Your task to perform on an android device: allow cookies in the chrome app Image 0: 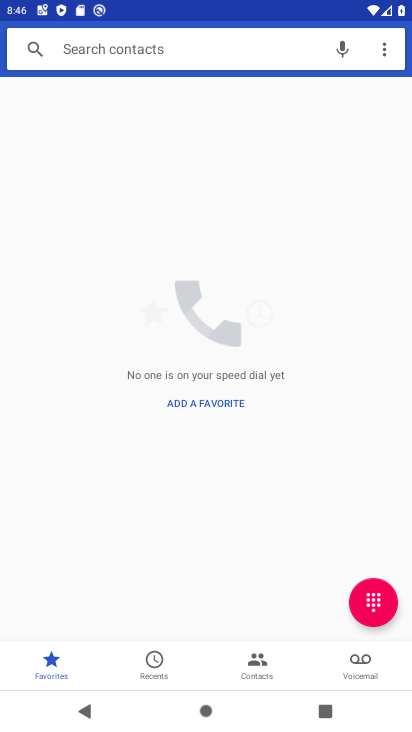
Step 0: press home button
Your task to perform on an android device: allow cookies in the chrome app Image 1: 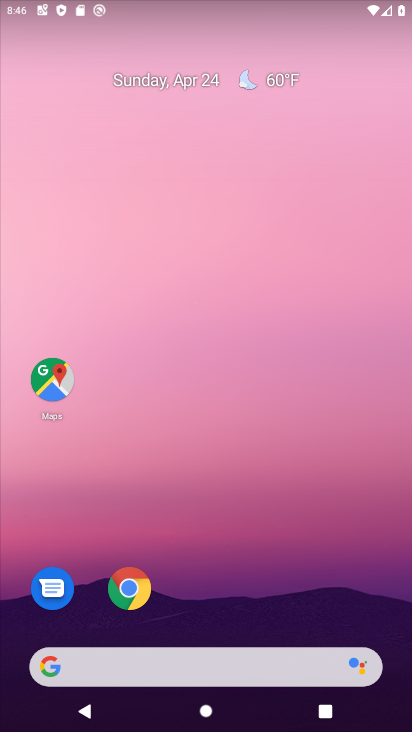
Step 1: click (128, 590)
Your task to perform on an android device: allow cookies in the chrome app Image 2: 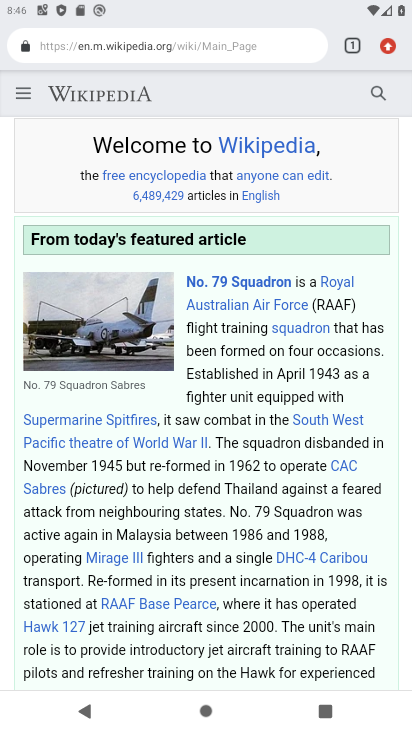
Step 2: click (388, 42)
Your task to perform on an android device: allow cookies in the chrome app Image 3: 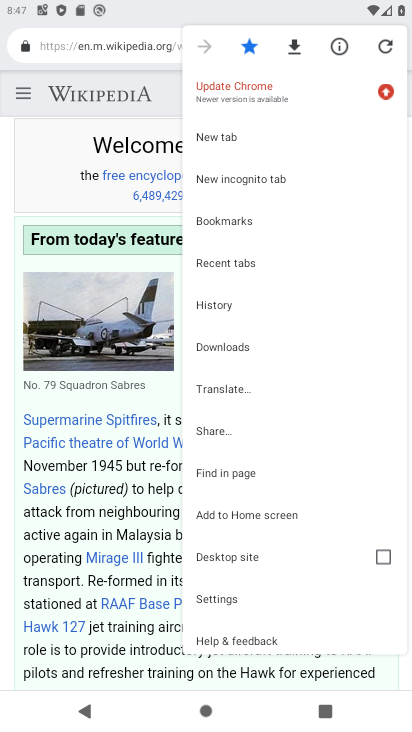
Step 3: click (222, 603)
Your task to perform on an android device: allow cookies in the chrome app Image 4: 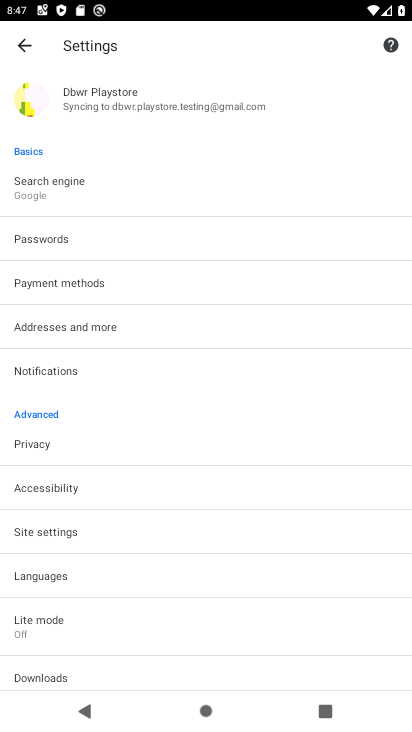
Step 4: click (54, 533)
Your task to perform on an android device: allow cookies in the chrome app Image 5: 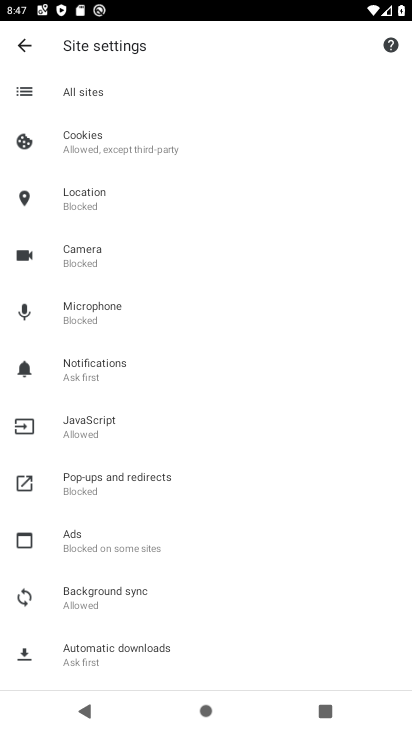
Step 5: click (142, 150)
Your task to perform on an android device: allow cookies in the chrome app Image 6: 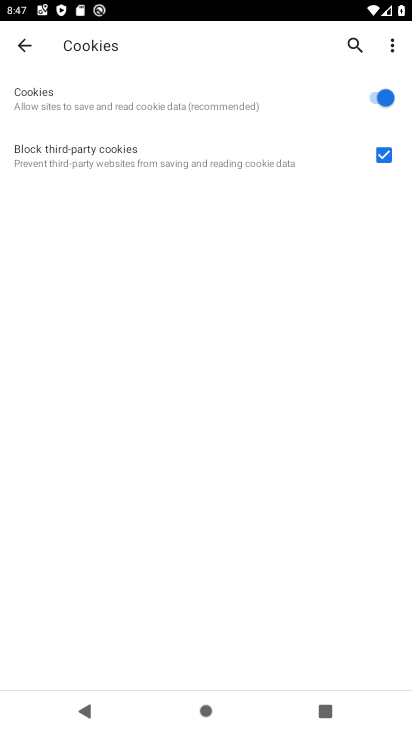
Step 6: task complete